Your task to perform on an android device: change notification settings in the gmail app Image 0: 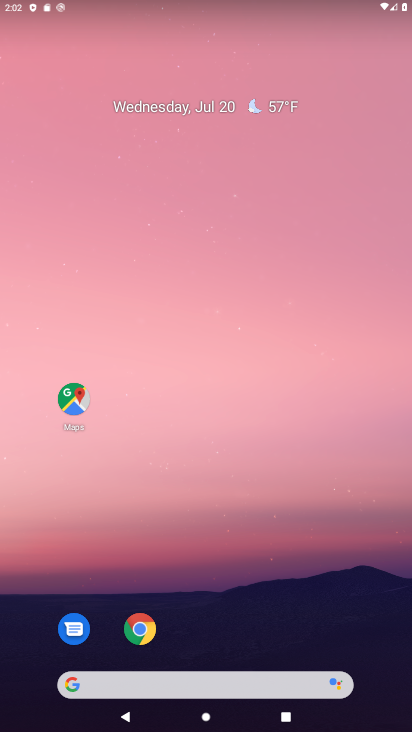
Step 0: click (408, 660)
Your task to perform on an android device: change notification settings in the gmail app Image 1: 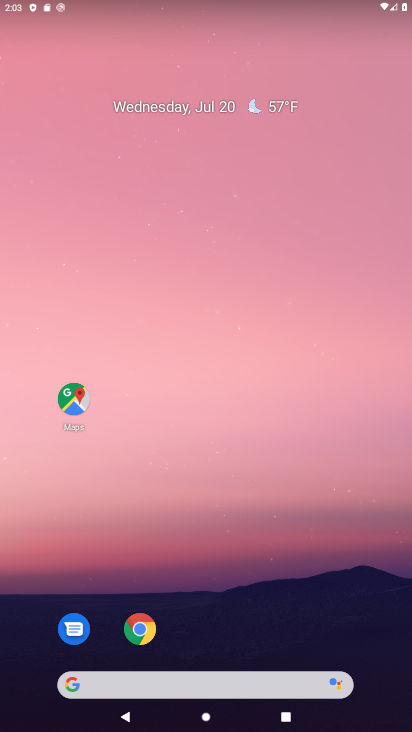
Step 1: drag from (378, 672) to (333, 29)
Your task to perform on an android device: change notification settings in the gmail app Image 2: 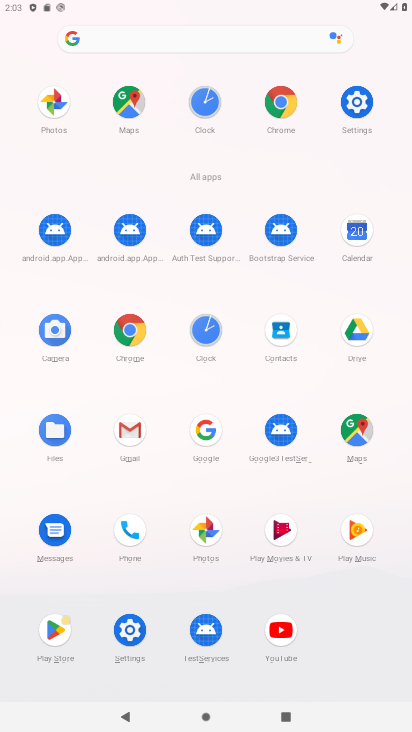
Step 2: click (129, 432)
Your task to perform on an android device: change notification settings in the gmail app Image 3: 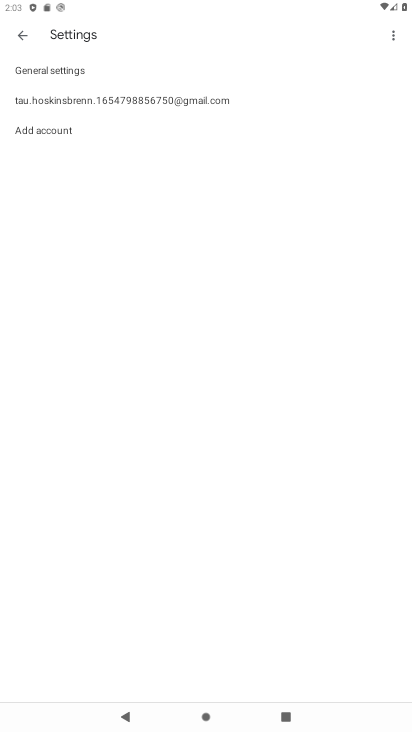
Step 3: click (98, 106)
Your task to perform on an android device: change notification settings in the gmail app Image 4: 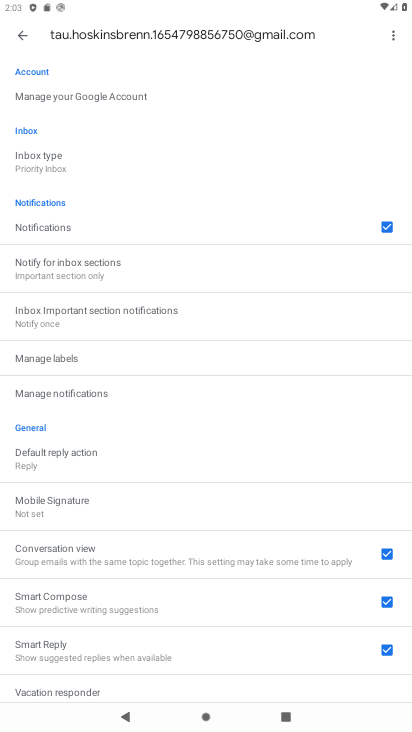
Step 4: click (74, 390)
Your task to perform on an android device: change notification settings in the gmail app Image 5: 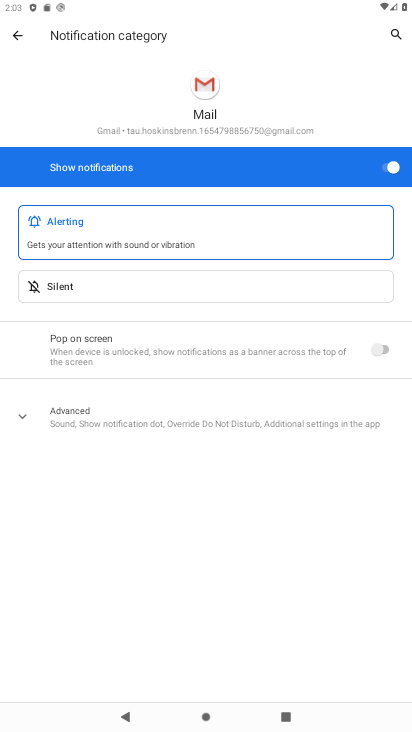
Step 5: click (383, 167)
Your task to perform on an android device: change notification settings in the gmail app Image 6: 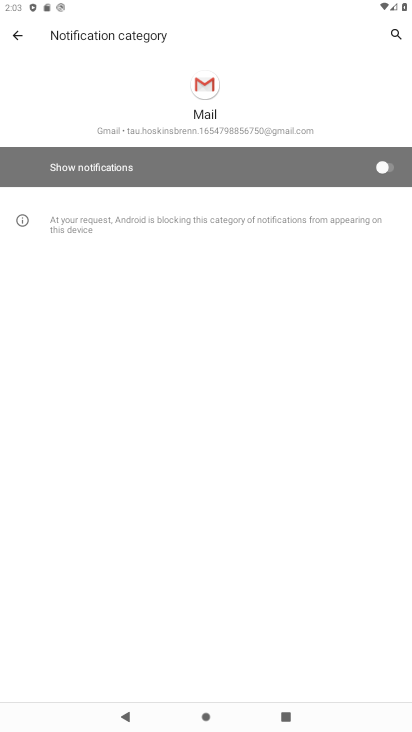
Step 6: task complete